Your task to perform on an android device: Turn on the flashlight Image 0: 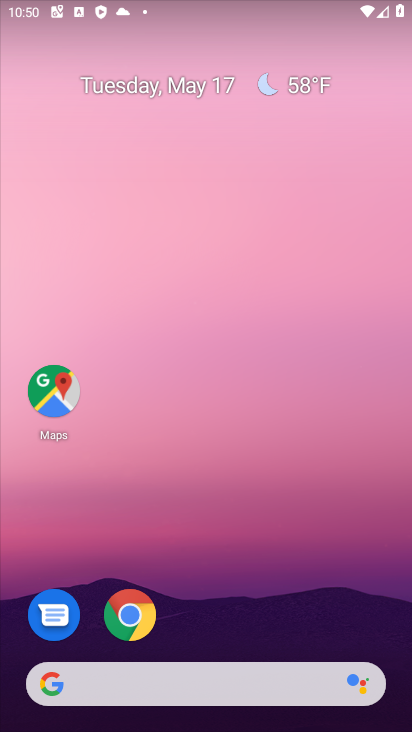
Step 0: drag from (255, 21) to (239, 521)
Your task to perform on an android device: Turn on the flashlight Image 1: 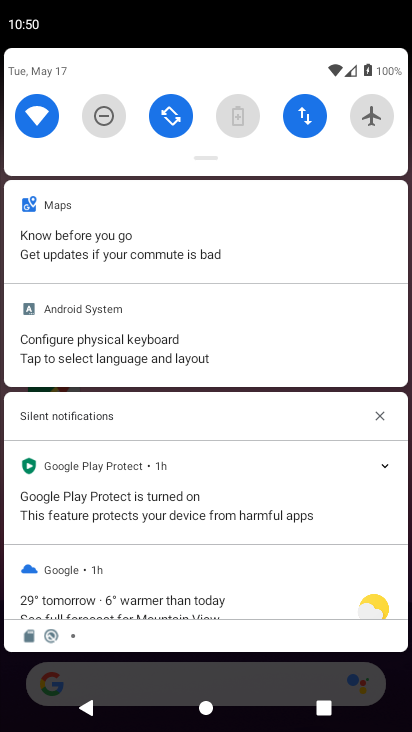
Step 1: drag from (208, 159) to (156, 550)
Your task to perform on an android device: Turn on the flashlight Image 2: 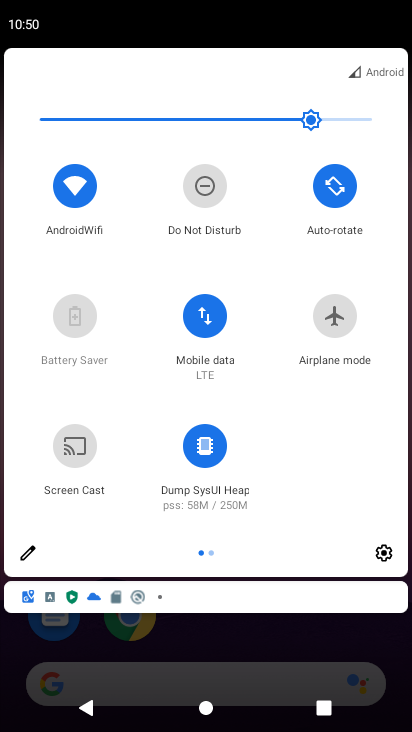
Step 2: click (36, 546)
Your task to perform on an android device: Turn on the flashlight Image 3: 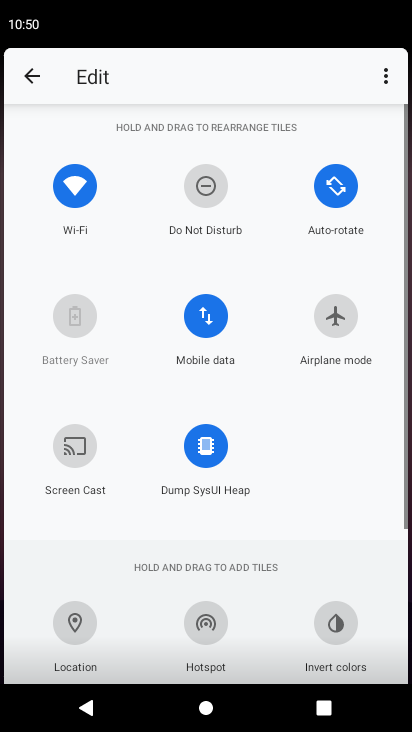
Step 3: task complete